Your task to perform on an android device: Search for seafood restaurants on Google Maps Image 0: 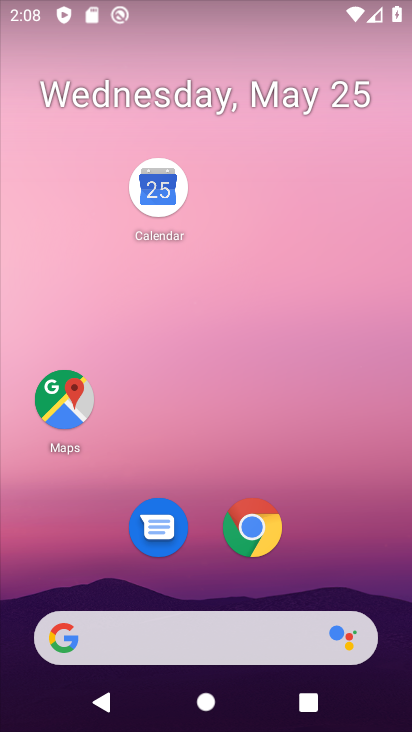
Step 0: click (66, 399)
Your task to perform on an android device: Search for seafood restaurants on Google Maps Image 1: 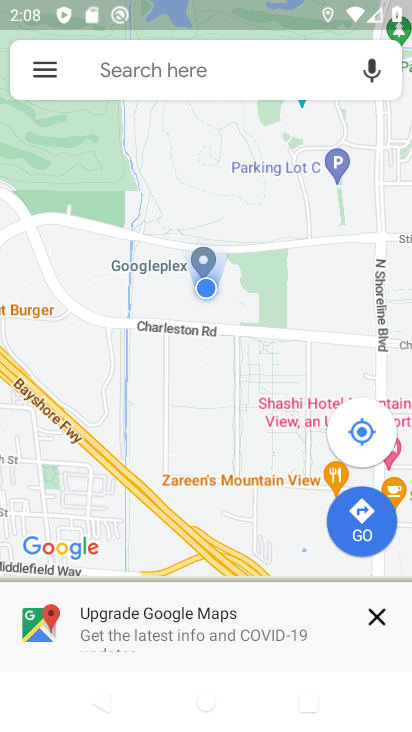
Step 1: click (208, 83)
Your task to perform on an android device: Search for seafood restaurants on Google Maps Image 2: 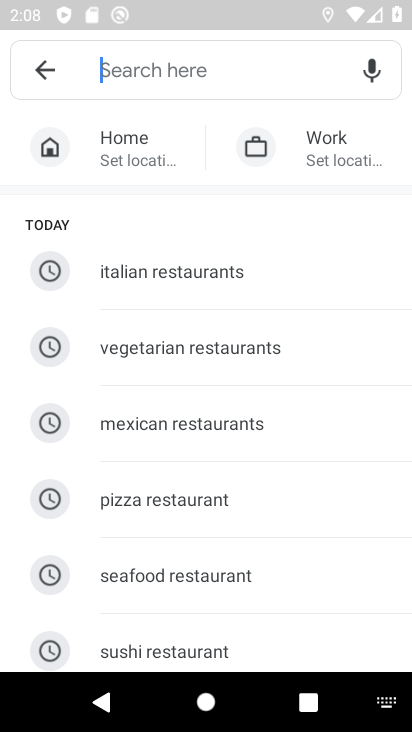
Step 2: click (225, 579)
Your task to perform on an android device: Search for seafood restaurants on Google Maps Image 3: 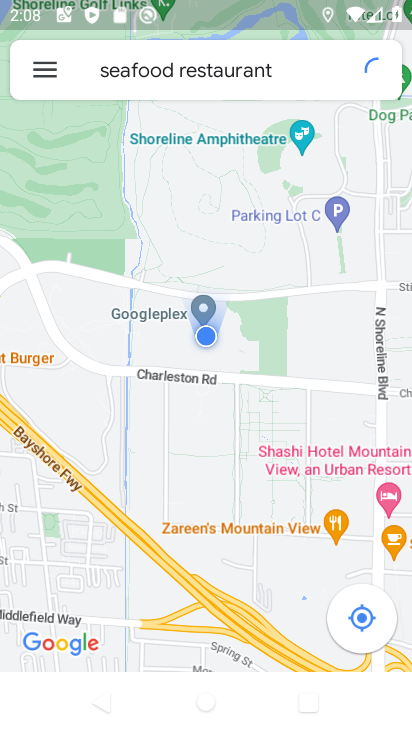
Step 3: task complete